Your task to perform on an android device: toggle improve location accuracy Image 0: 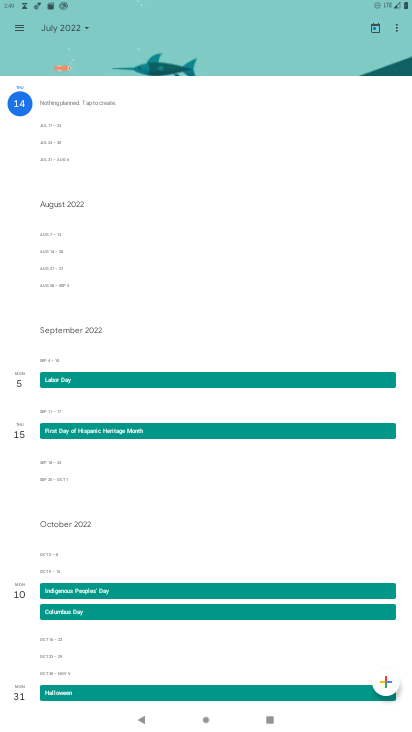
Step 0: press home button
Your task to perform on an android device: toggle improve location accuracy Image 1: 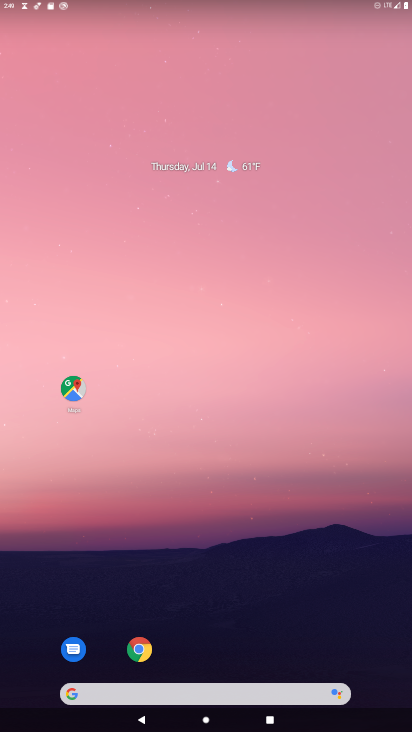
Step 1: drag from (321, 557) to (319, 171)
Your task to perform on an android device: toggle improve location accuracy Image 2: 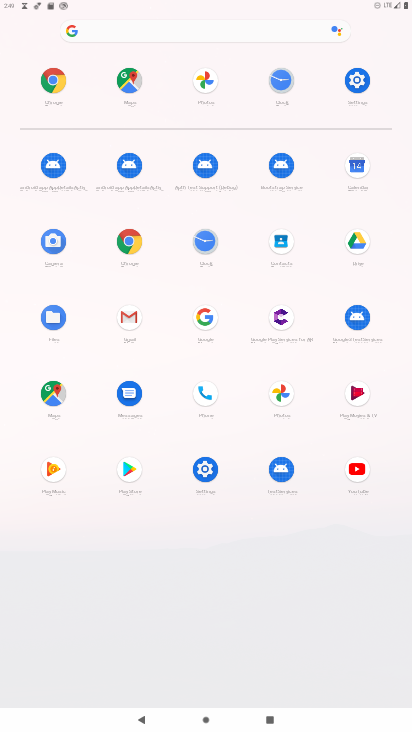
Step 2: click (359, 78)
Your task to perform on an android device: toggle improve location accuracy Image 3: 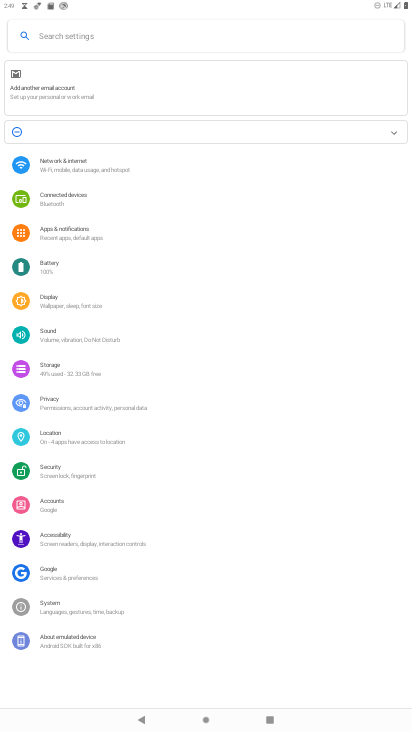
Step 3: click (59, 441)
Your task to perform on an android device: toggle improve location accuracy Image 4: 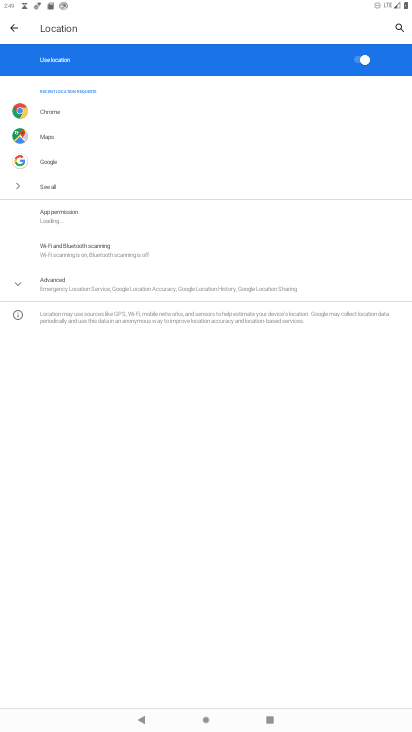
Step 4: click (184, 293)
Your task to perform on an android device: toggle improve location accuracy Image 5: 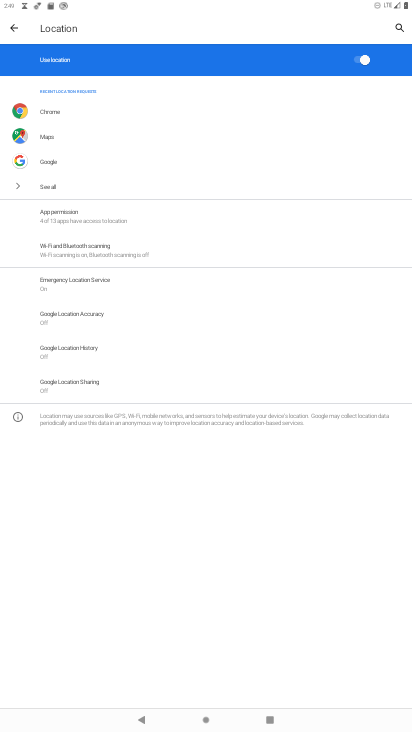
Step 5: click (95, 314)
Your task to perform on an android device: toggle improve location accuracy Image 6: 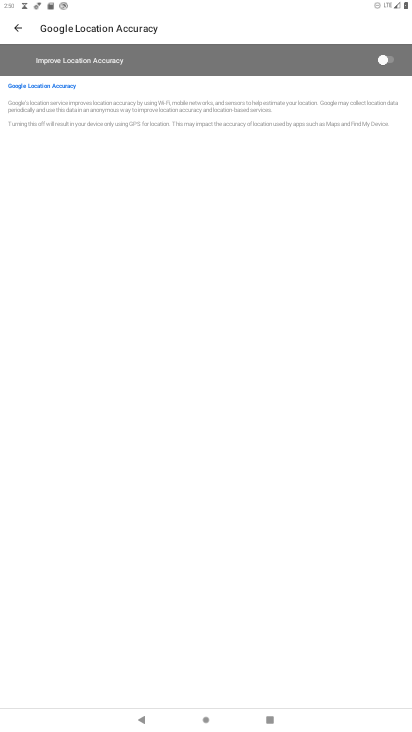
Step 6: click (382, 64)
Your task to perform on an android device: toggle improve location accuracy Image 7: 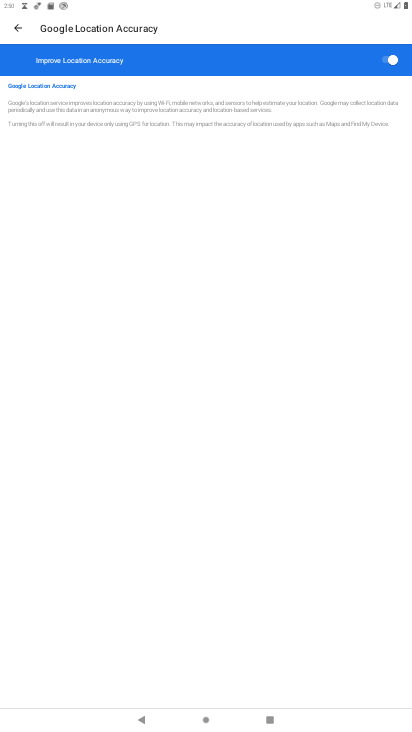
Step 7: task complete